Your task to perform on an android device: turn off improve location accuracy Image 0: 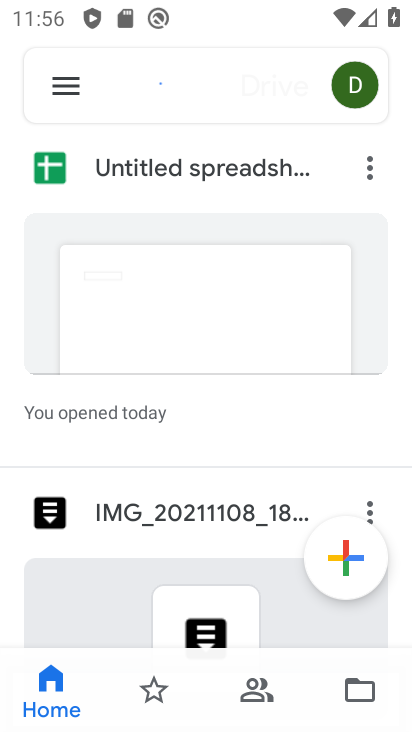
Step 0: press home button
Your task to perform on an android device: turn off improve location accuracy Image 1: 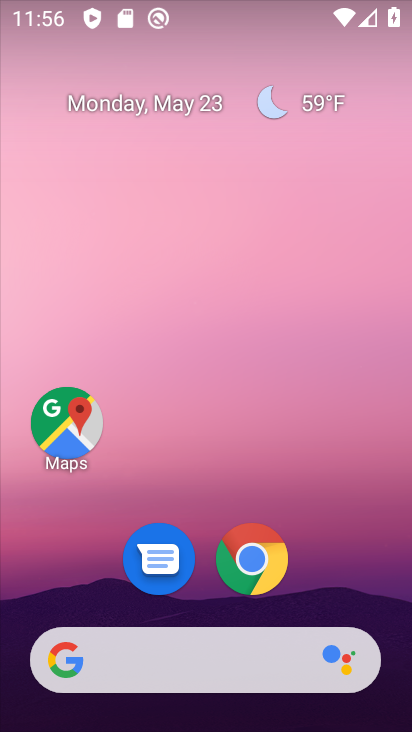
Step 1: drag from (397, 697) to (351, 236)
Your task to perform on an android device: turn off improve location accuracy Image 2: 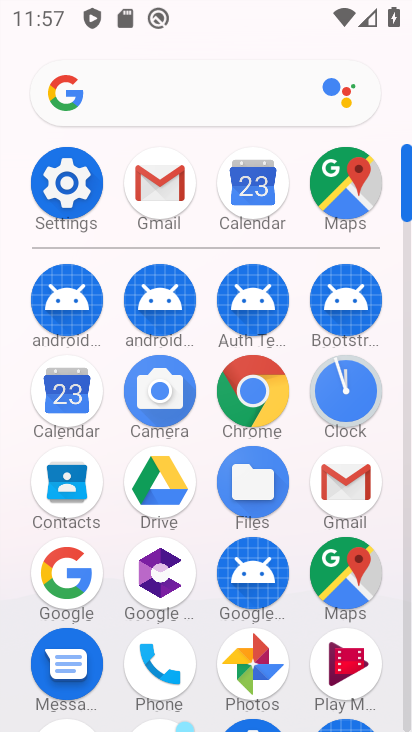
Step 2: click (77, 186)
Your task to perform on an android device: turn off improve location accuracy Image 3: 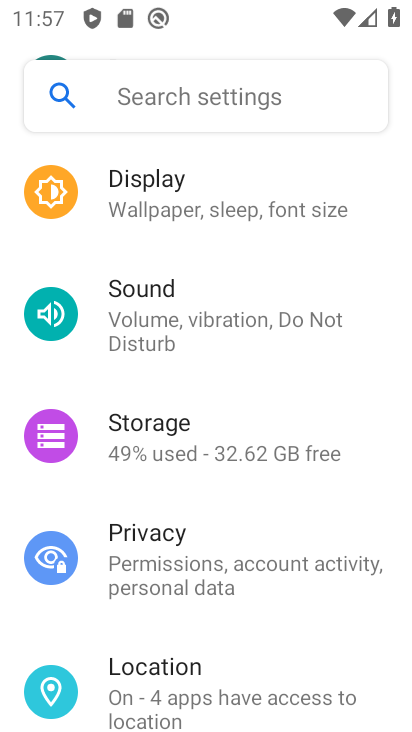
Step 3: click (125, 670)
Your task to perform on an android device: turn off improve location accuracy Image 4: 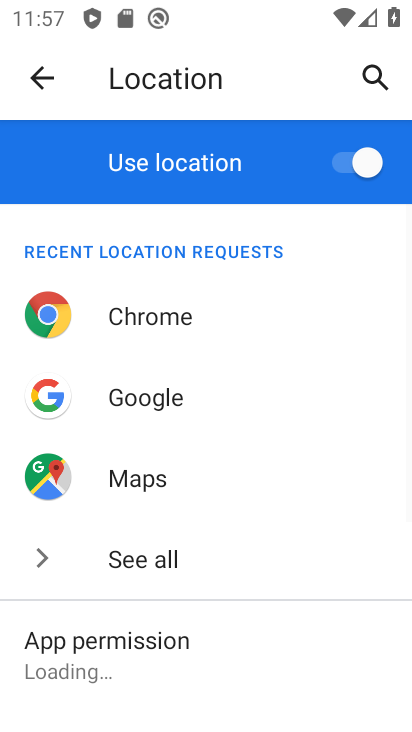
Step 4: drag from (327, 690) to (302, 196)
Your task to perform on an android device: turn off improve location accuracy Image 5: 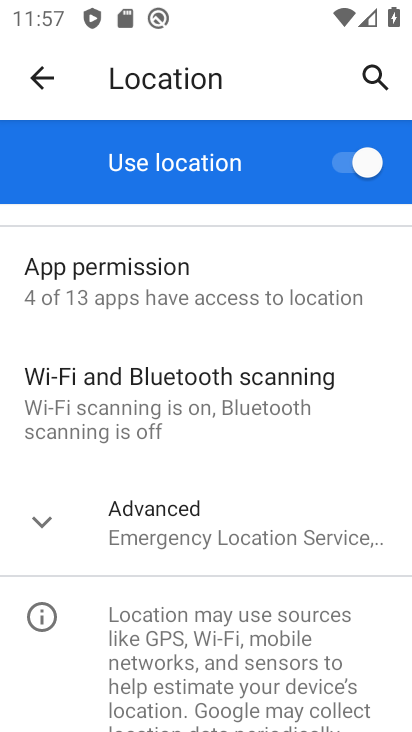
Step 5: click (39, 517)
Your task to perform on an android device: turn off improve location accuracy Image 6: 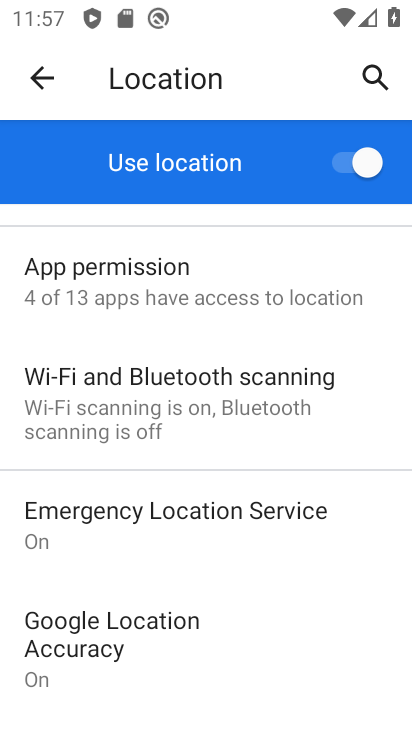
Step 6: drag from (343, 670) to (316, 287)
Your task to perform on an android device: turn off improve location accuracy Image 7: 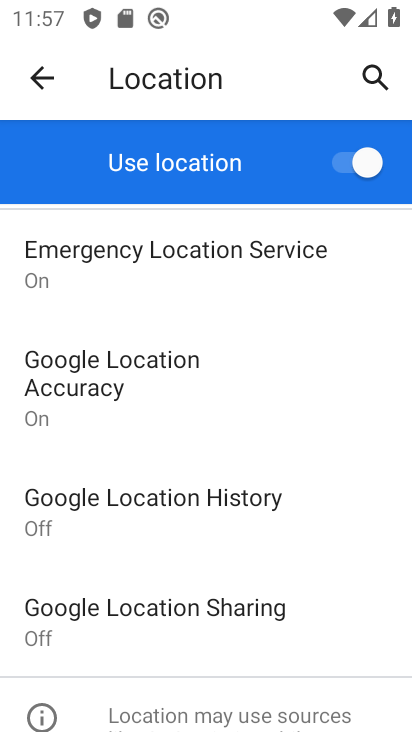
Step 7: click (68, 376)
Your task to perform on an android device: turn off improve location accuracy Image 8: 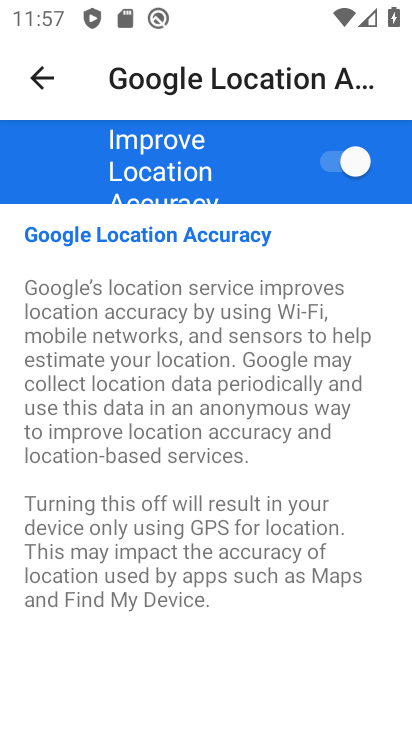
Step 8: click (320, 160)
Your task to perform on an android device: turn off improve location accuracy Image 9: 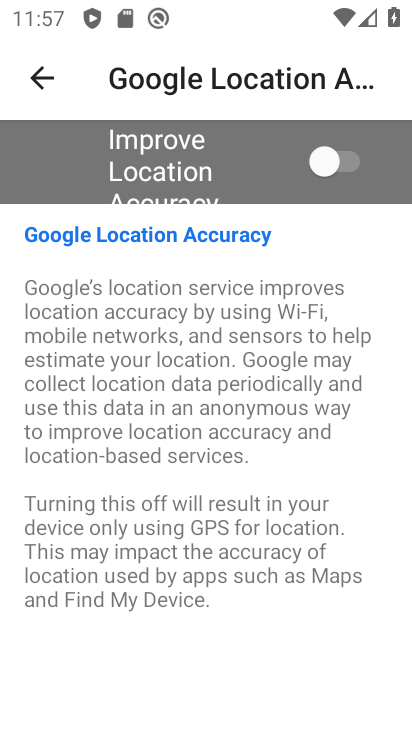
Step 9: task complete